Your task to perform on an android device: Open accessibility settings Image 0: 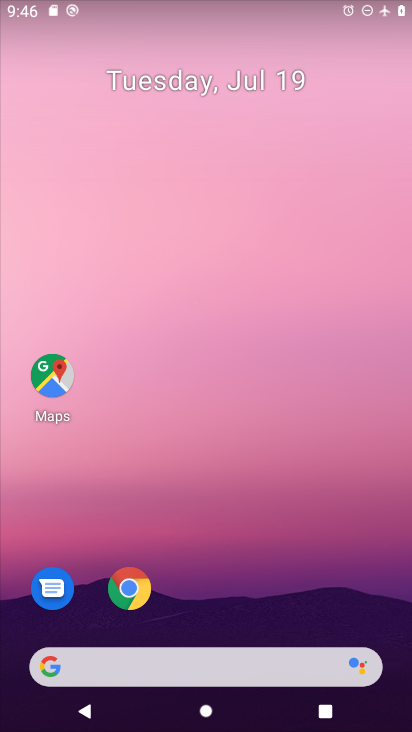
Step 0: drag from (250, 607) to (330, 196)
Your task to perform on an android device: Open accessibility settings Image 1: 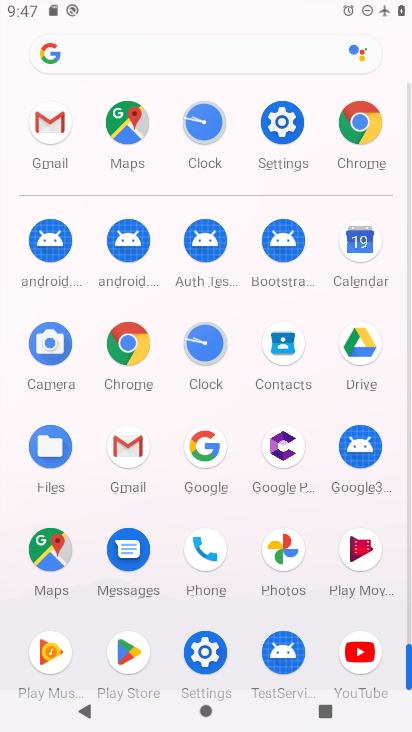
Step 1: click (268, 142)
Your task to perform on an android device: Open accessibility settings Image 2: 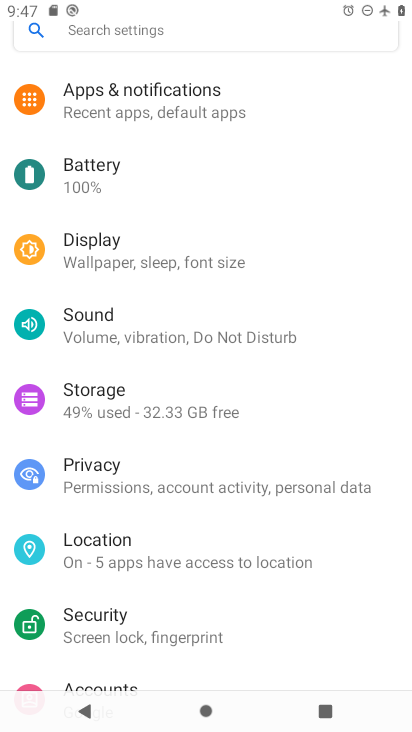
Step 2: drag from (361, 225) to (361, 359)
Your task to perform on an android device: Open accessibility settings Image 3: 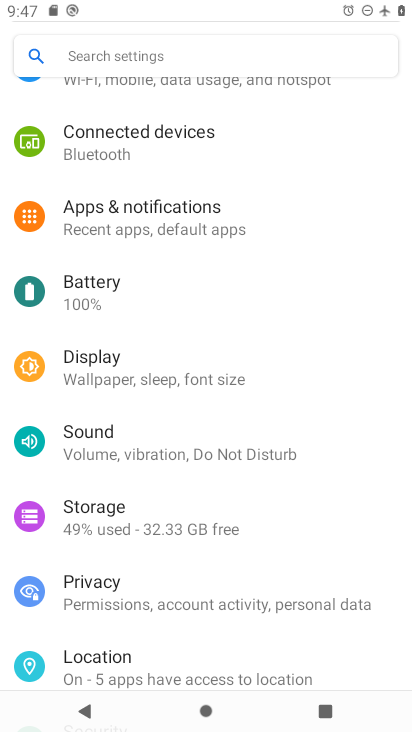
Step 3: drag from (358, 238) to (357, 351)
Your task to perform on an android device: Open accessibility settings Image 4: 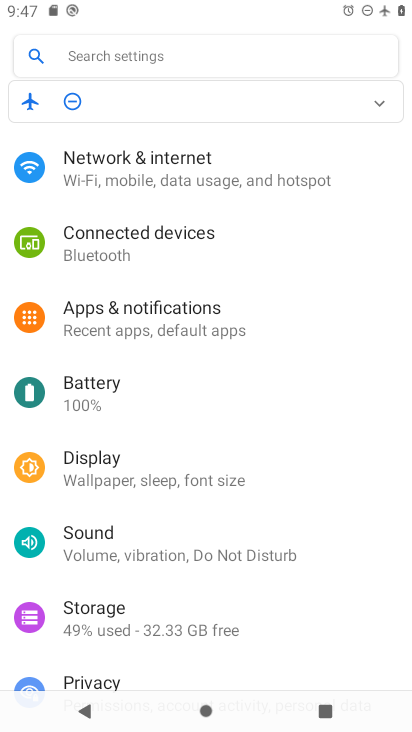
Step 4: drag from (354, 224) to (354, 335)
Your task to perform on an android device: Open accessibility settings Image 5: 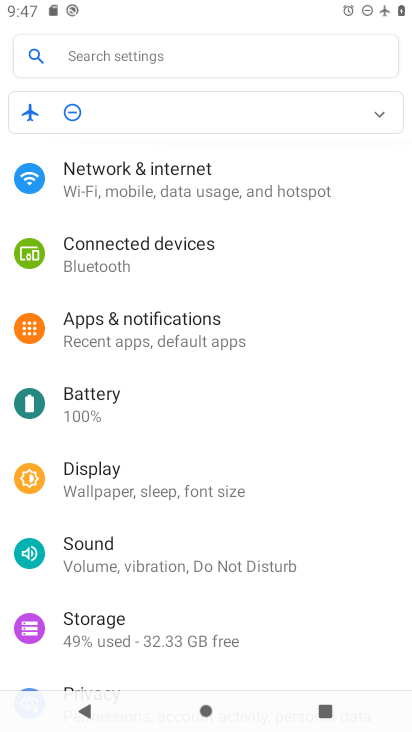
Step 5: drag from (343, 238) to (342, 346)
Your task to perform on an android device: Open accessibility settings Image 6: 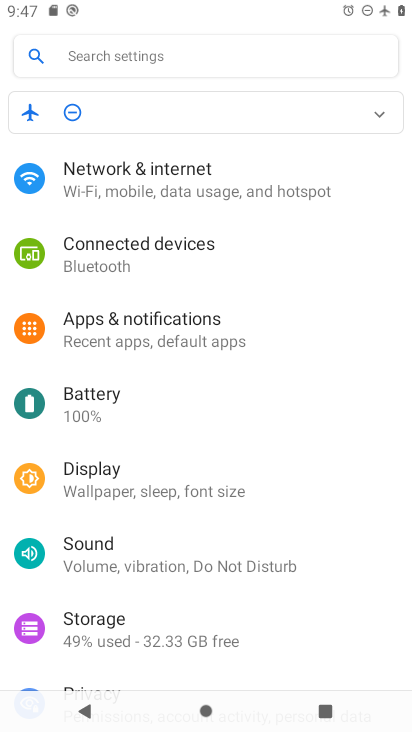
Step 6: click (340, 286)
Your task to perform on an android device: Open accessibility settings Image 7: 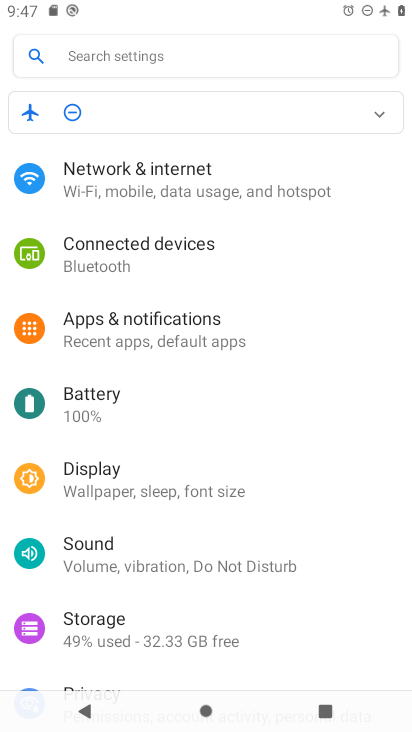
Step 7: drag from (330, 416) to (329, 290)
Your task to perform on an android device: Open accessibility settings Image 8: 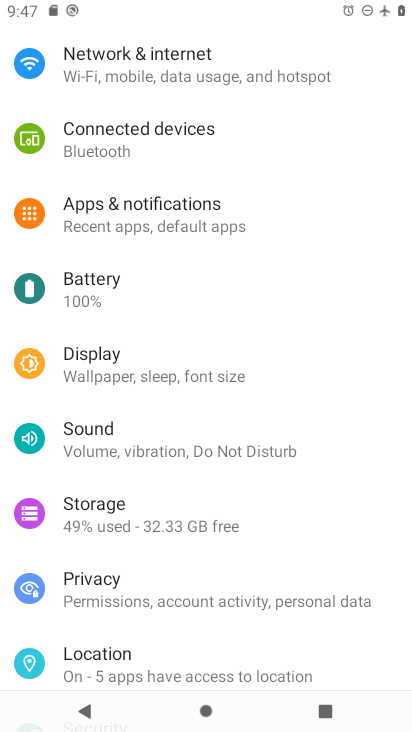
Step 8: drag from (320, 521) to (337, 348)
Your task to perform on an android device: Open accessibility settings Image 9: 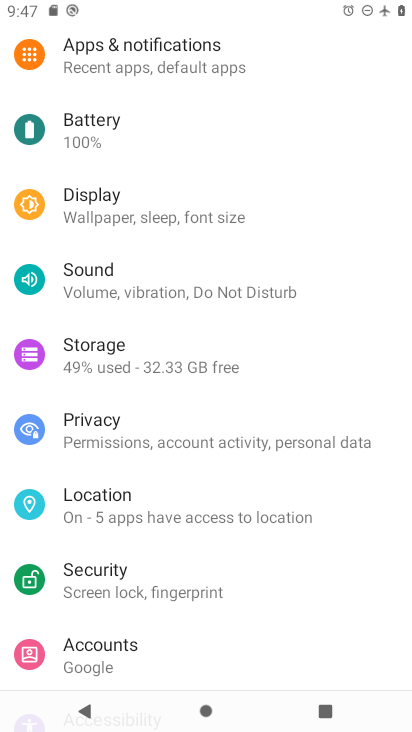
Step 9: drag from (282, 576) to (304, 398)
Your task to perform on an android device: Open accessibility settings Image 10: 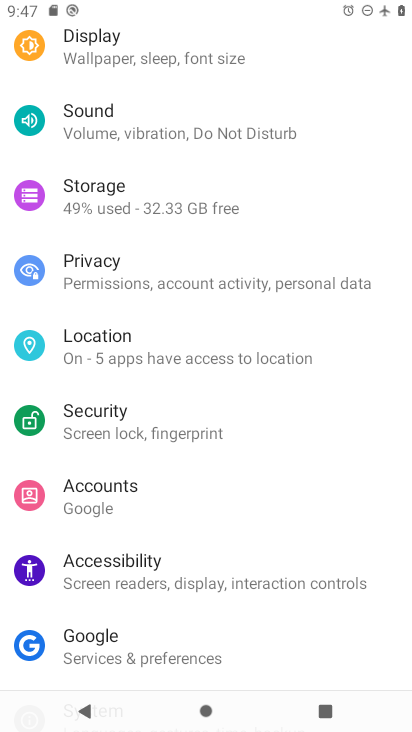
Step 10: click (303, 579)
Your task to perform on an android device: Open accessibility settings Image 11: 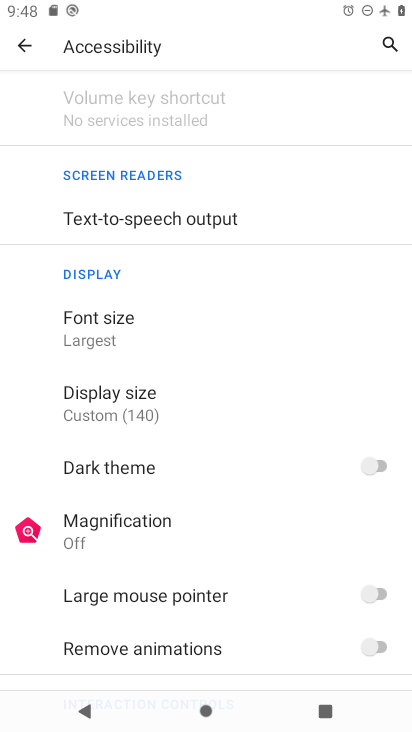
Step 11: task complete